Your task to perform on an android device: Is it going to rain today? Image 0: 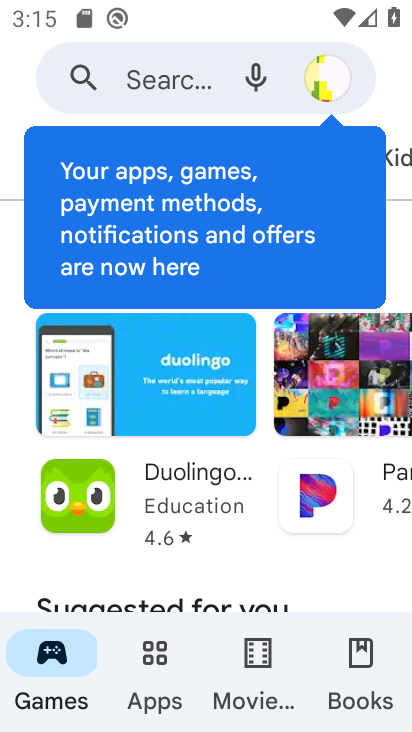
Step 0: press home button
Your task to perform on an android device: Is it going to rain today? Image 1: 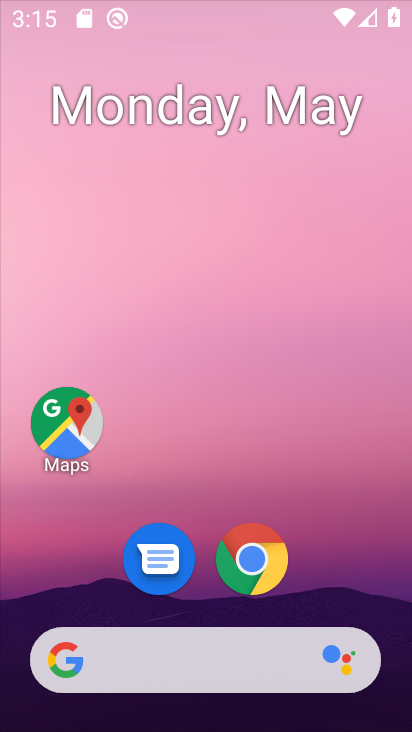
Step 1: drag from (195, 508) to (242, 233)
Your task to perform on an android device: Is it going to rain today? Image 2: 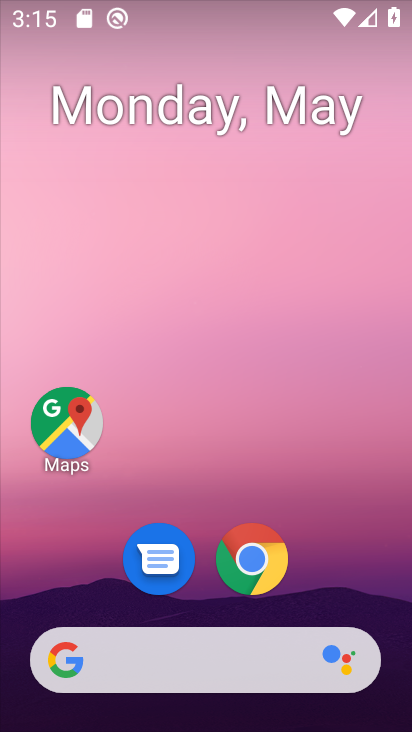
Step 2: click (234, 572)
Your task to perform on an android device: Is it going to rain today? Image 3: 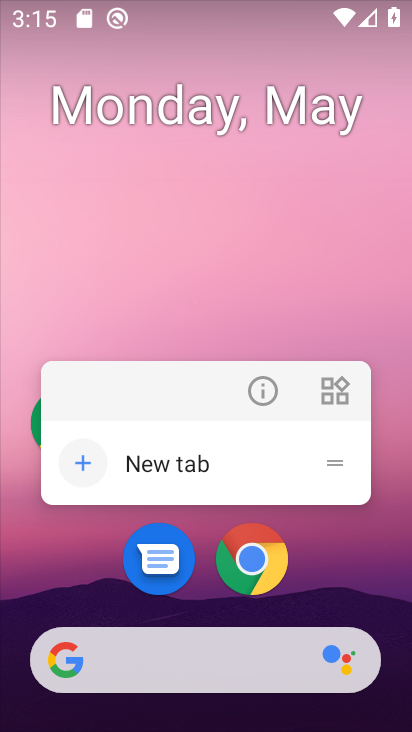
Step 3: click (267, 531)
Your task to perform on an android device: Is it going to rain today? Image 4: 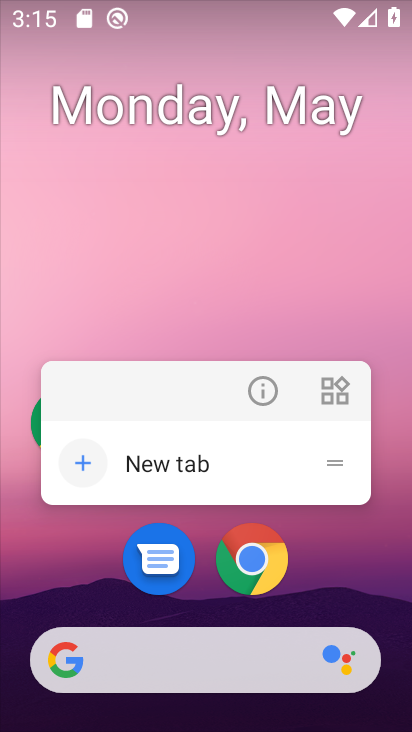
Step 4: click (262, 563)
Your task to perform on an android device: Is it going to rain today? Image 5: 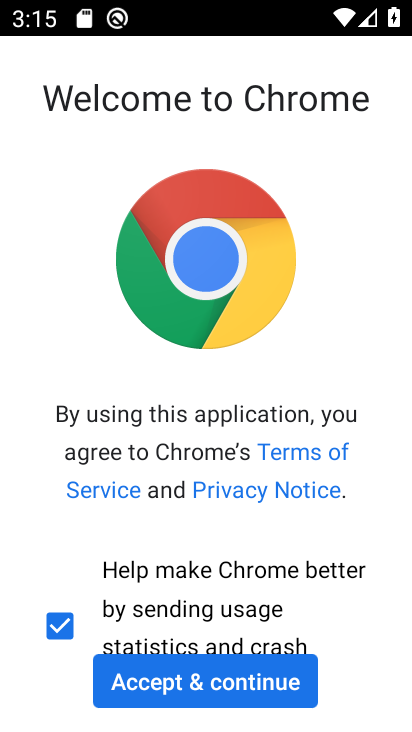
Step 5: click (204, 684)
Your task to perform on an android device: Is it going to rain today? Image 6: 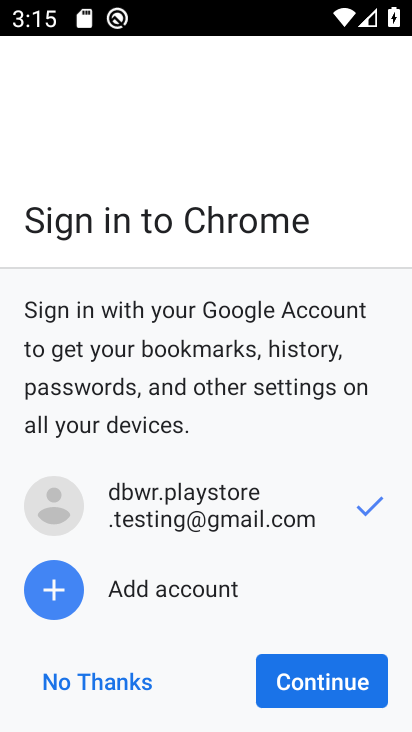
Step 6: click (259, 674)
Your task to perform on an android device: Is it going to rain today? Image 7: 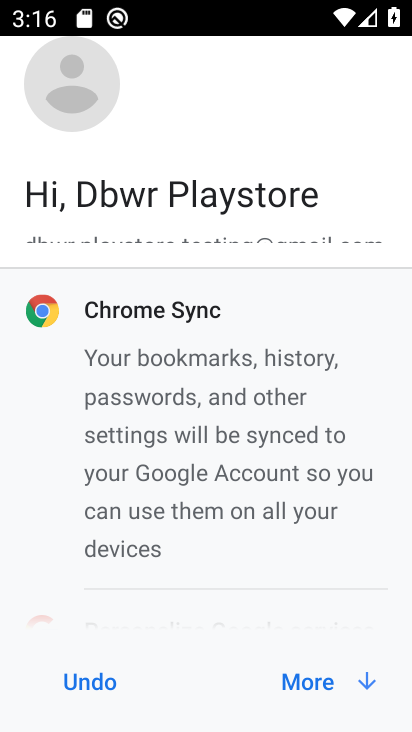
Step 7: click (294, 685)
Your task to perform on an android device: Is it going to rain today? Image 8: 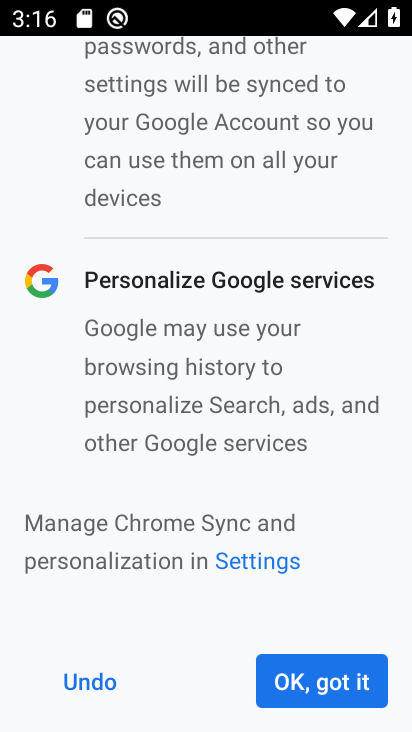
Step 8: click (277, 671)
Your task to perform on an android device: Is it going to rain today? Image 9: 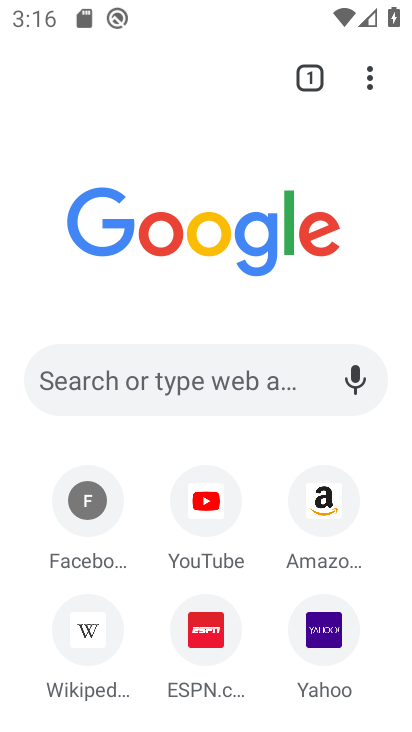
Step 9: click (245, 352)
Your task to perform on an android device: Is it going to rain today? Image 10: 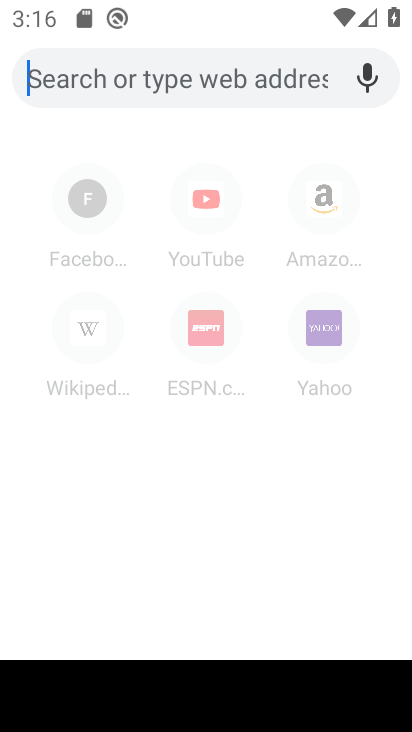
Step 10: type "Is it going to rain today?"
Your task to perform on an android device: Is it going to rain today? Image 11: 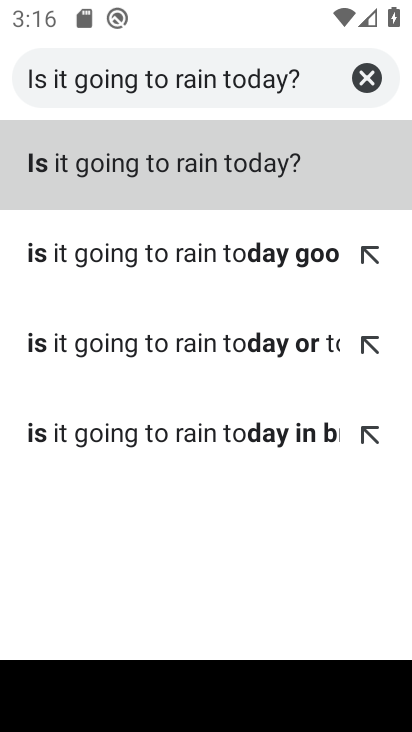
Step 11: click (295, 183)
Your task to perform on an android device: Is it going to rain today? Image 12: 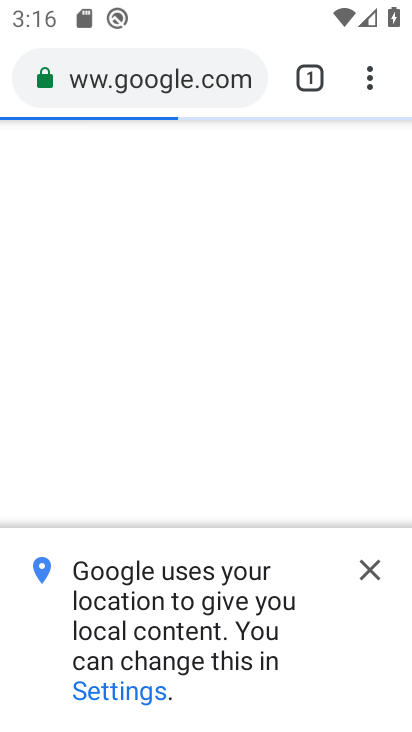
Step 12: task complete